Your task to perform on an android device: Is it going to rain today? Image 0: 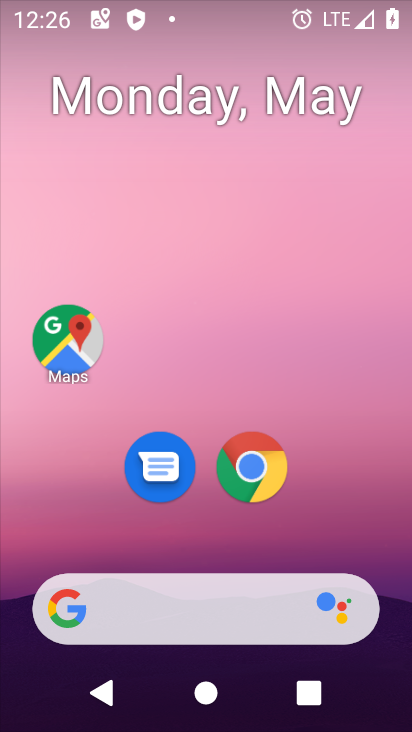
Step 0: click (104, 599)
Your task to perform on an android device: Is it going to rain today? Image 1: 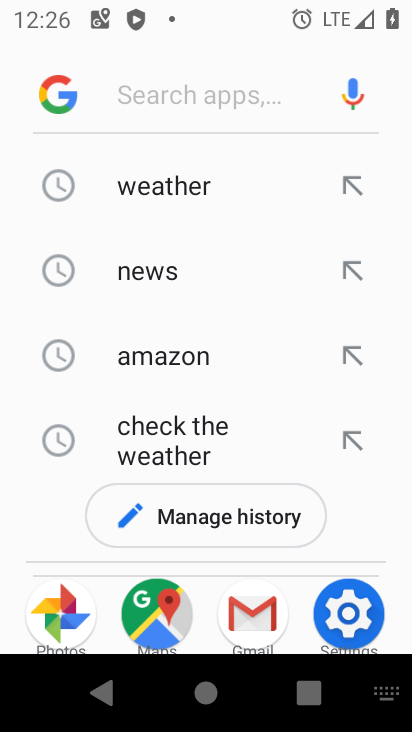
Step 1: click (161, 186)
Your task to perform on an android device: Is it going to rain today? Image 2: 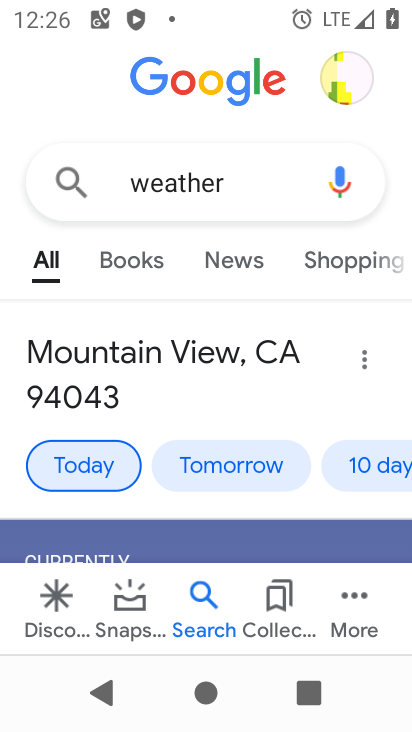
Step 2: task complete